Your task to perform on an android device: Is it going to rain today? Image 0: 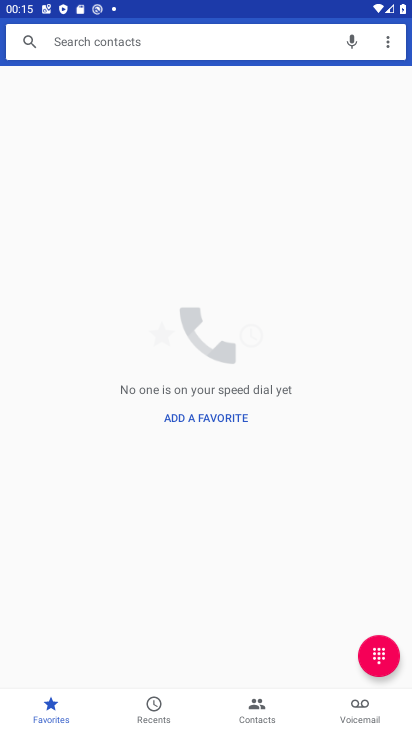
Step 0: press home button
Your task to perform on an android device: Is it going to rain today? Image 1: 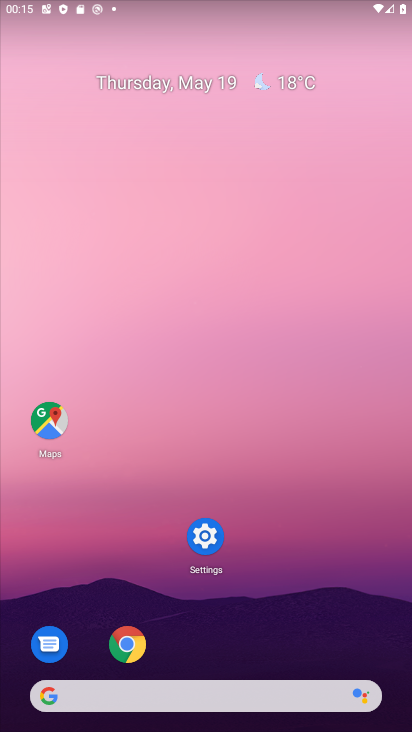
Step 1: click (308, 80)
Your task to perform on an android device: Is it going to rain today? Image 2: 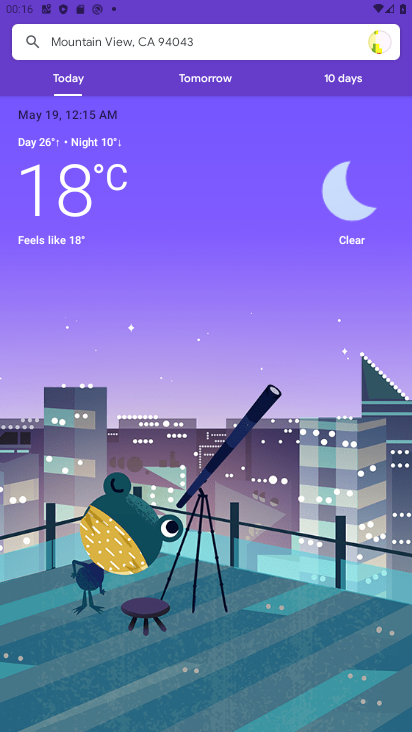
Step 2: task complete